Your task to perform on an android device: set the timer Image 0: 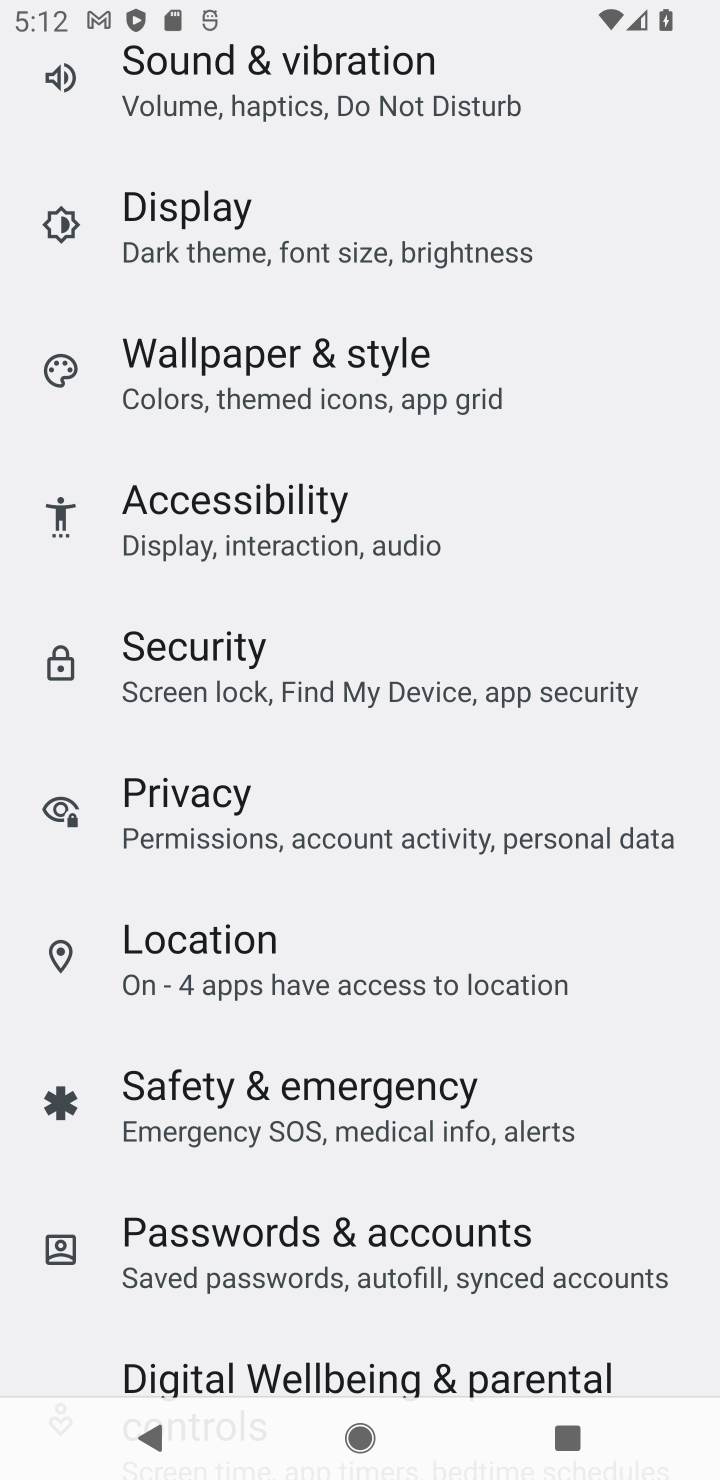
Step 0: press home button
Your task to perform on an android device: set the timer Image 1: 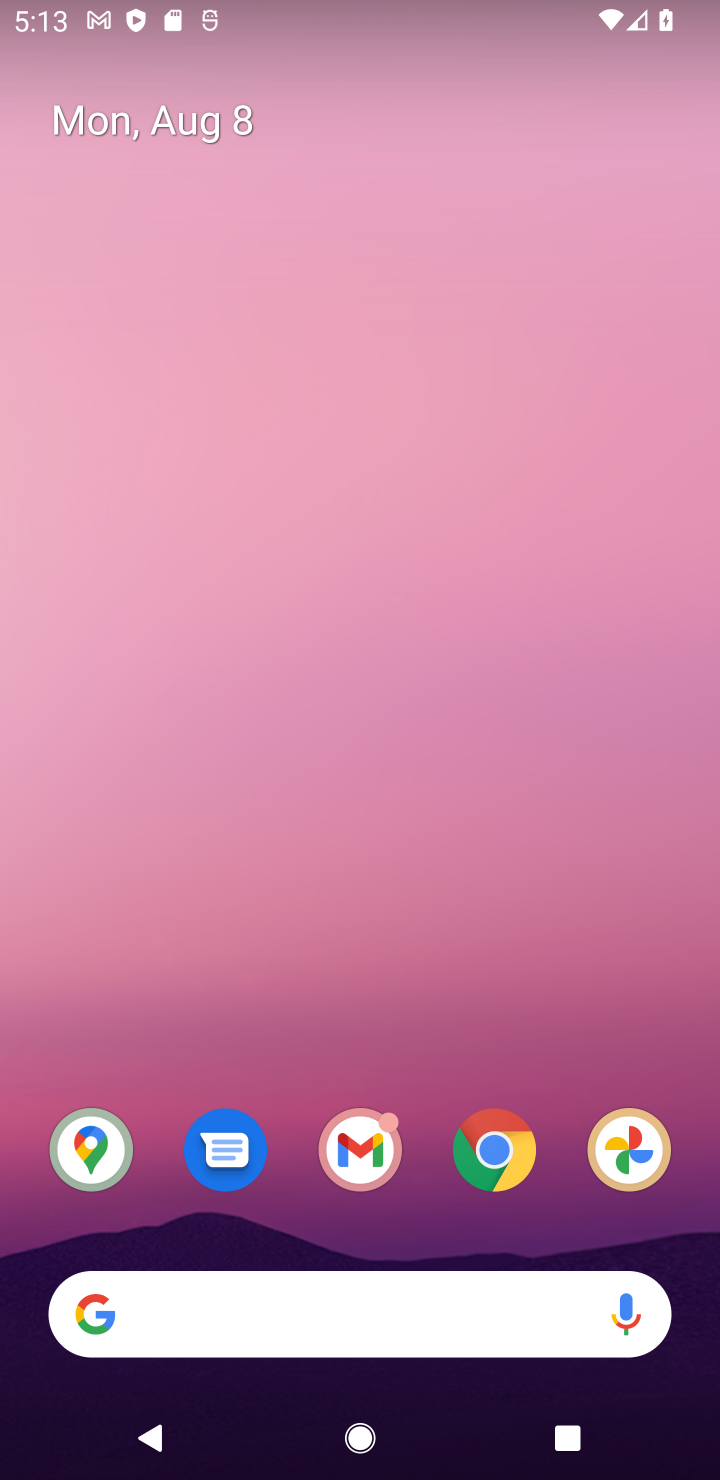
Step 1: drag from (281, 1224) to (715, 110)
Your task to perform on an android device: set the timer Image 2: 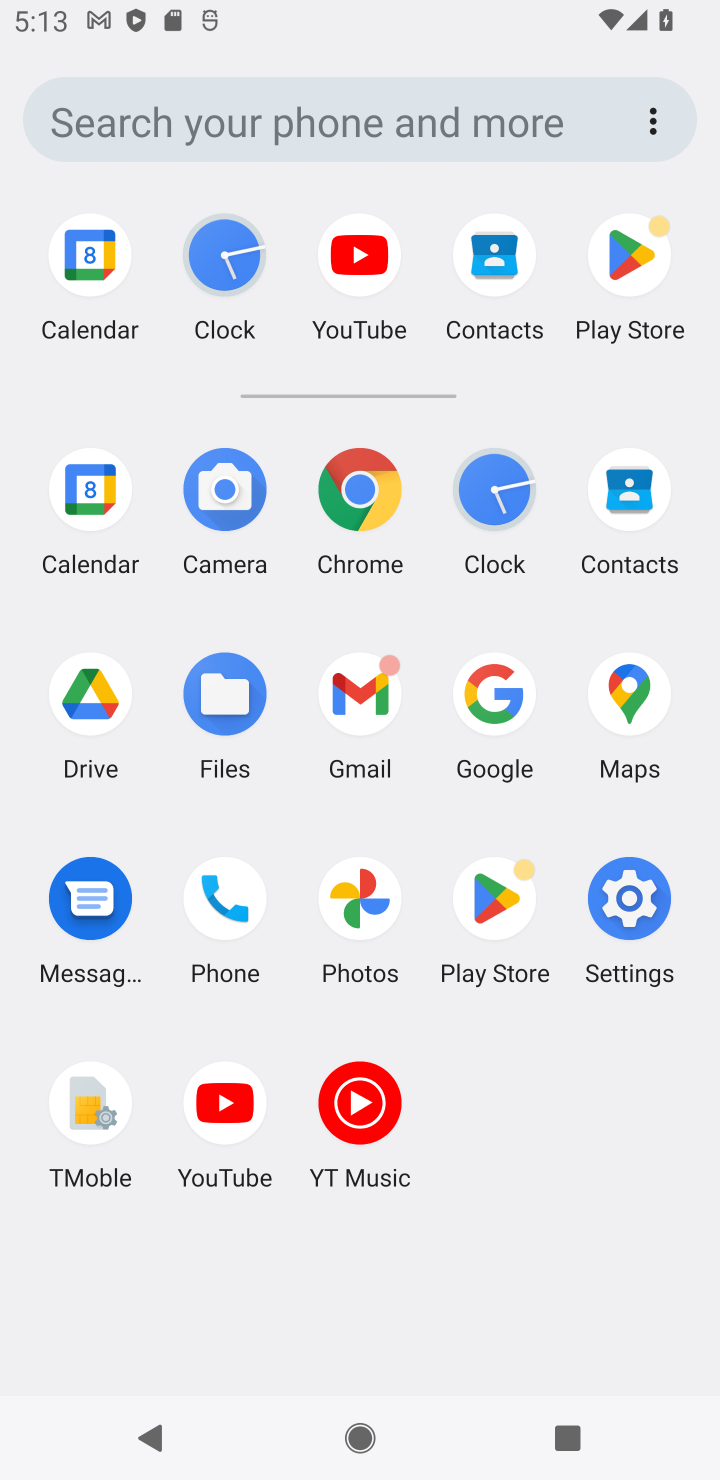
Step 2: click (244, 265)
Your task to perform on an android device: set the timer Image 3: 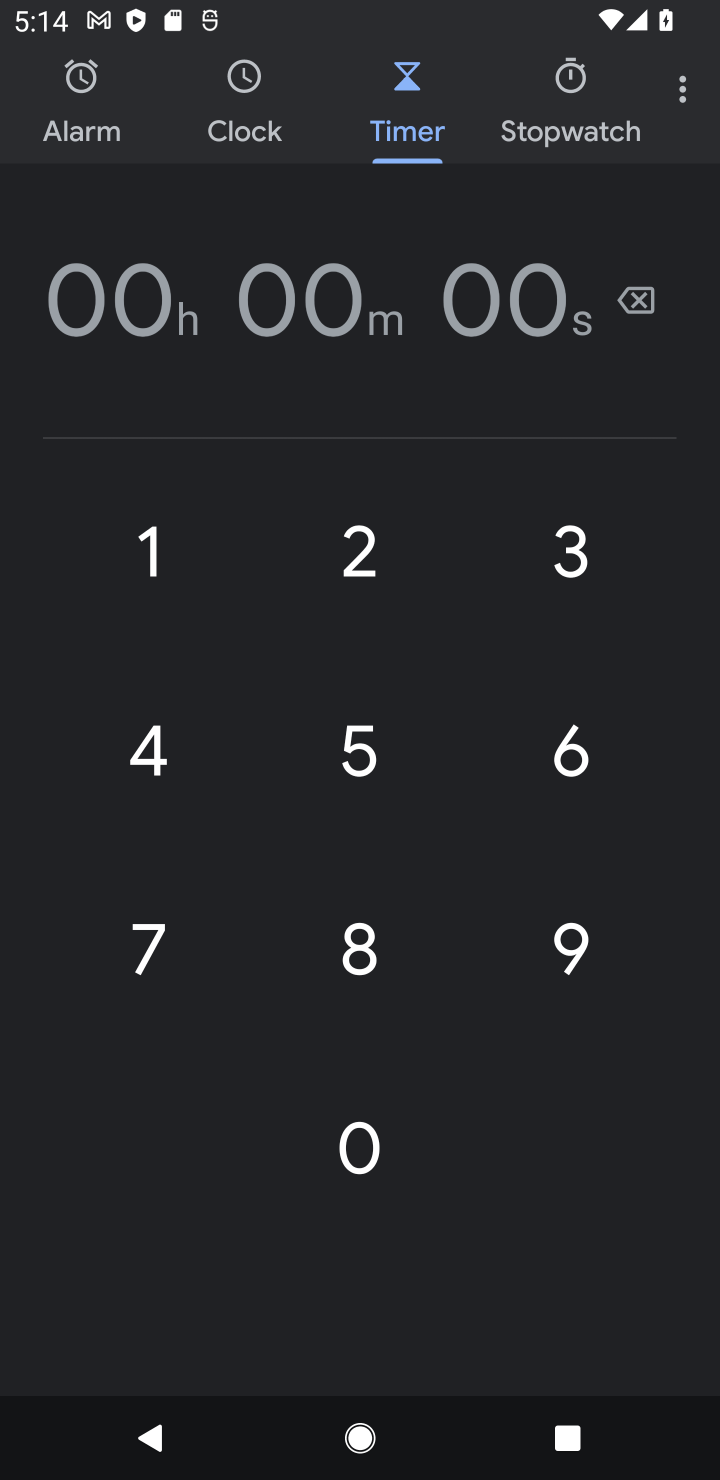
Step 3: click (690, 90)
Your task to perform on an android device: set the timer Image 4: 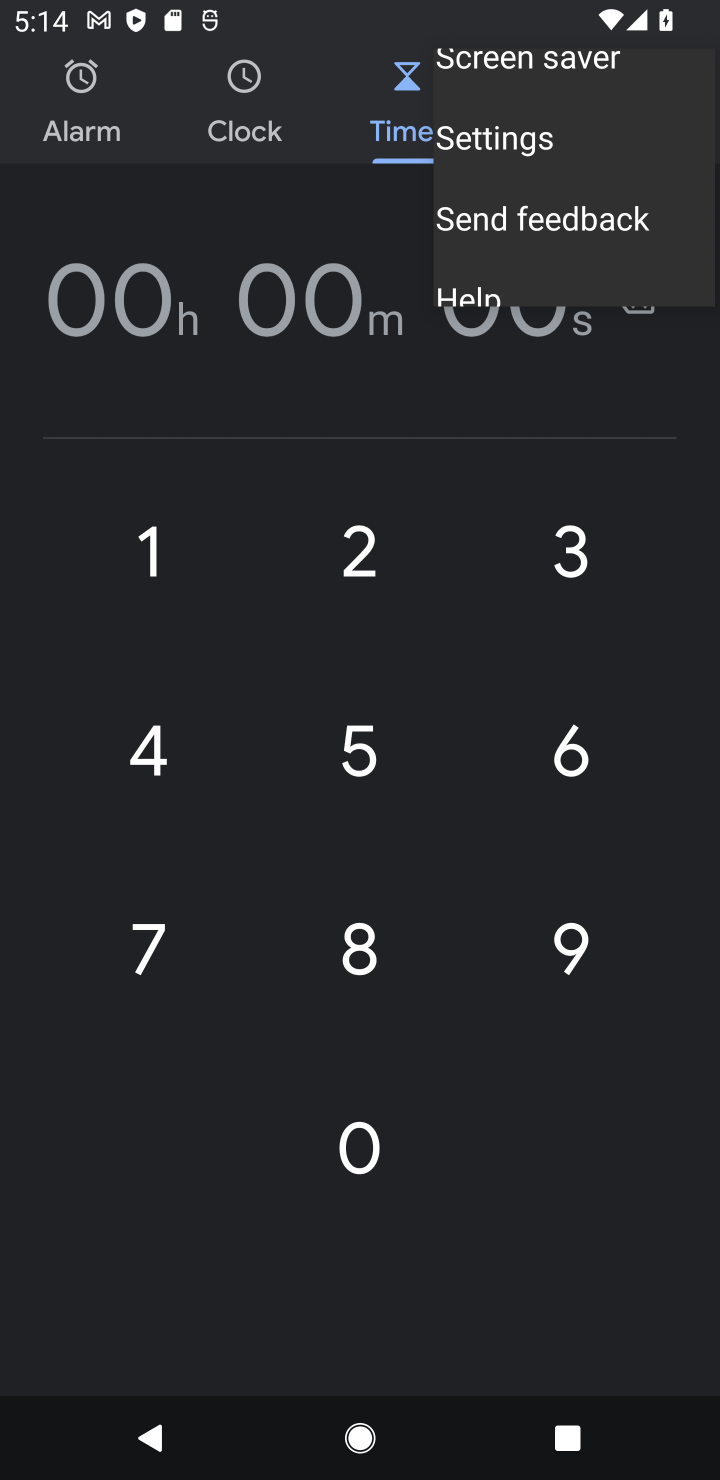
Step 4: task complete